Your task to perform on an android device: Search for vegetarian restaurants on Maps Image 0: 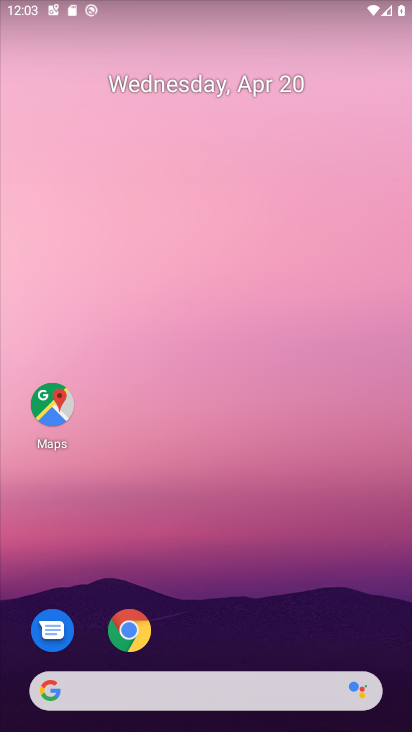
Step 0: drag from (270, 581) to (291, 134)
Your task to perform on an android device: Search for vegetarian restaurants on Maps Image 1: 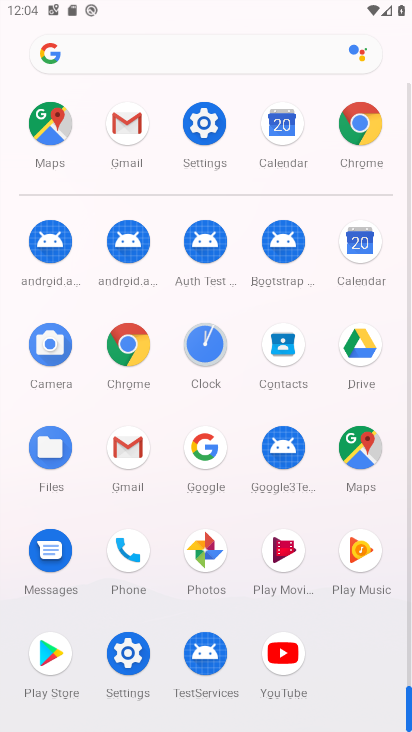
Step 1: click (357, 447)
Your task to perform on an android device: Search for vegetarian restaurants on Maps Image 2: 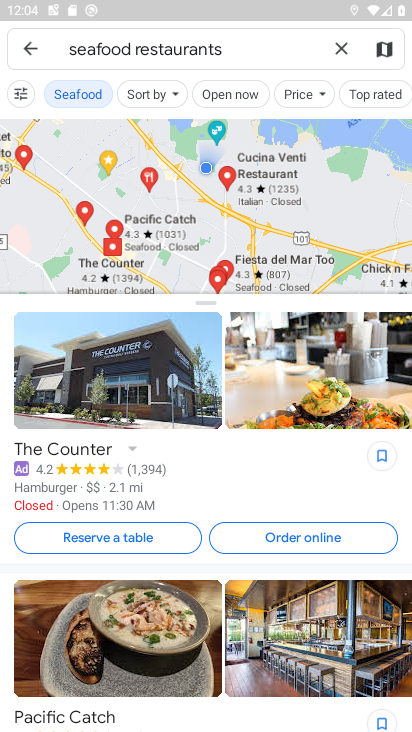
Step 2: click (334, 46)
Your task to perform on an android device: Search for vegetarian restaurants on Maps Image 3: 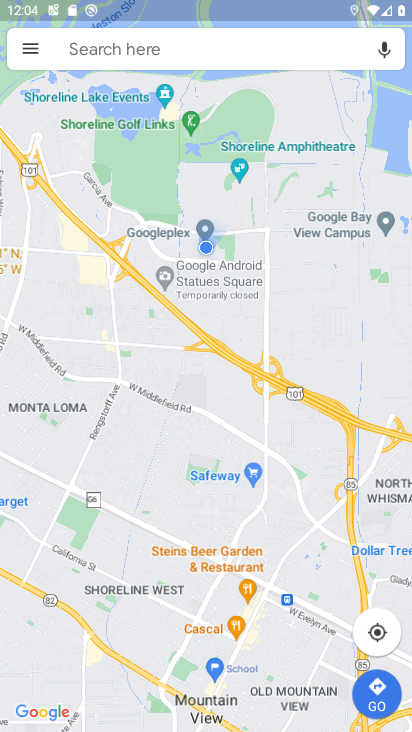
Step 3: click (90, 44)
Your task to perform on an android device: Search for vegetarian restaurants on Maps Image 4: 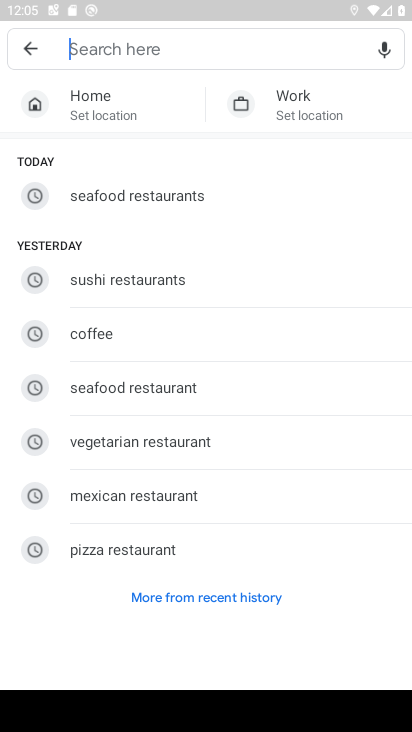
Step 4: type " vegetarian restaurants"
Your task to perform on an android device: Search for vegetarian restaurants on Maps Image 5: 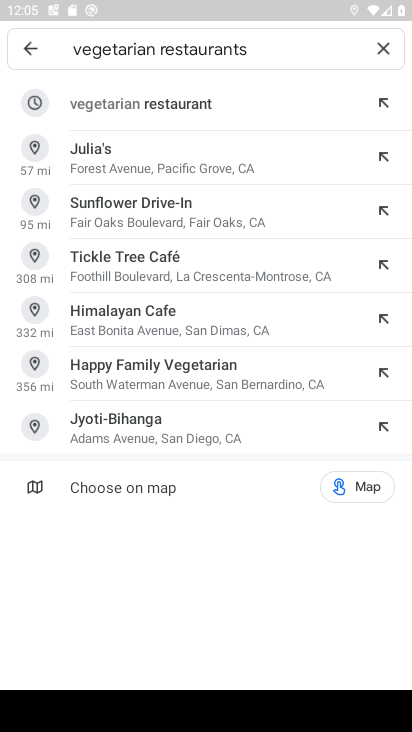
Step 5: click (173, 104)
Your task to perform on an android device: Search for vegetarian restaurants on Maps Image 6: 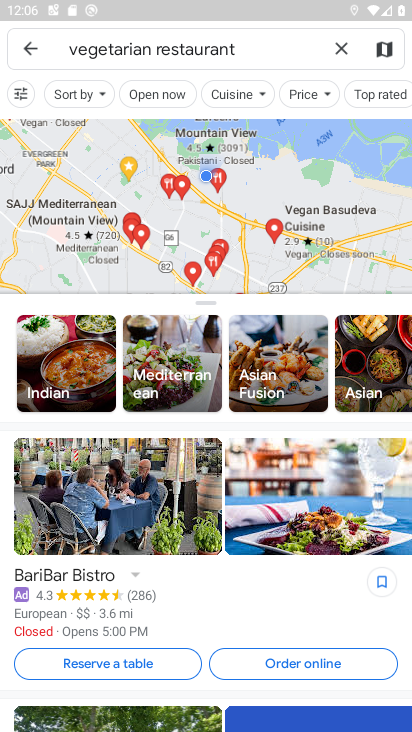
Step 6: task complete